Your task to perform on an android device: open chrome privacy settings Image 0: 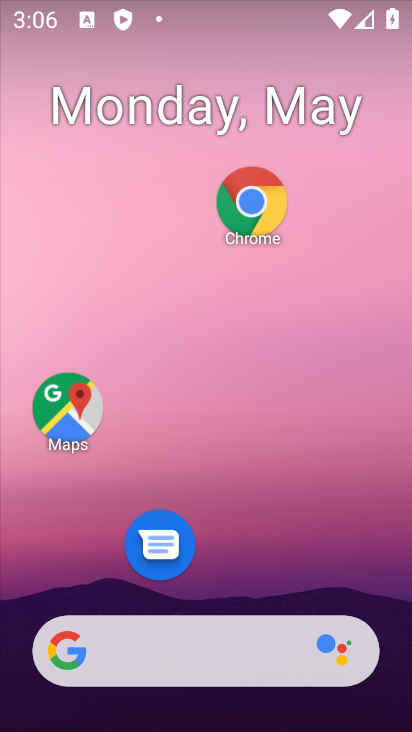
Step 0: click (214, 580)
Your task to perform on an android device: open chrome privacy settings Image 1: 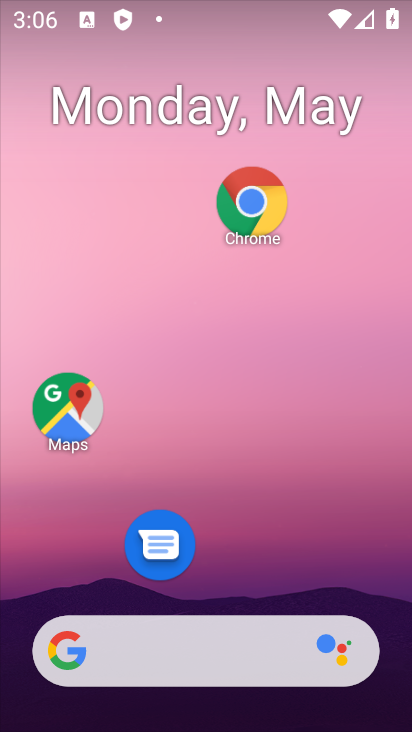
Step 1: click (258, 235)
Your task to perform on an android device: open chrome privacy settings Image 2: 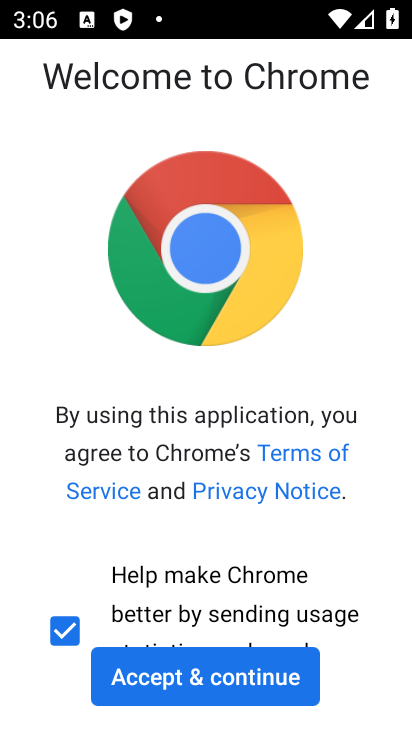
Step 2: click (199, 658)
Your task to perform on an android device: open chrome privacy settings Image 3: 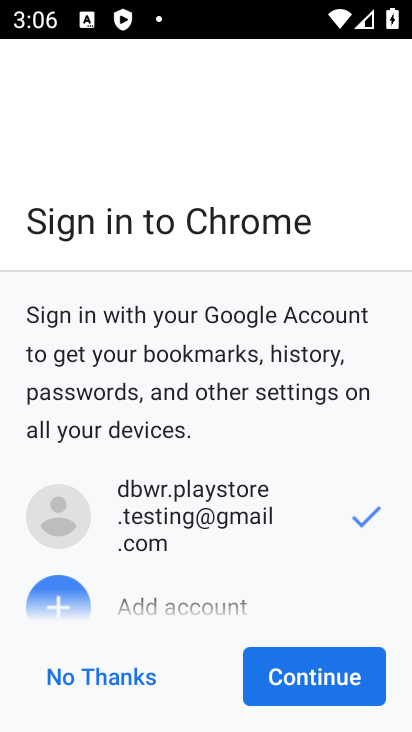
Step 3: click (338, 694)
Your task to perform on an android device: open chrome privacy settings Image 4: 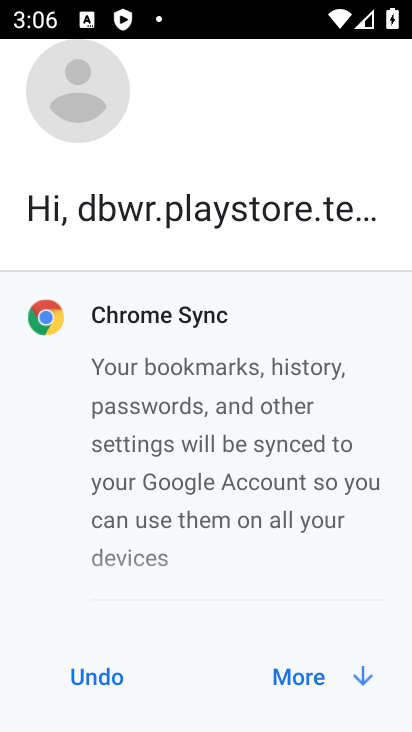
Step 4: click (339, 692)
Your task to perform on an android device: open chrome privacy settings Image 5: 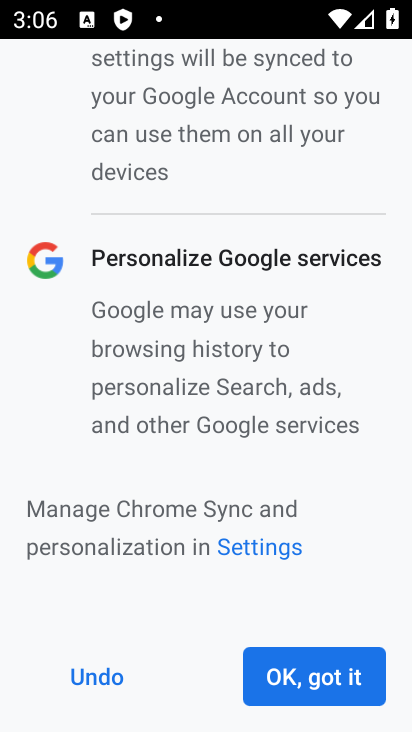
Step 5: click (339, 692)
Your task to perform on an android device: open chrome privacy settings Image 6: 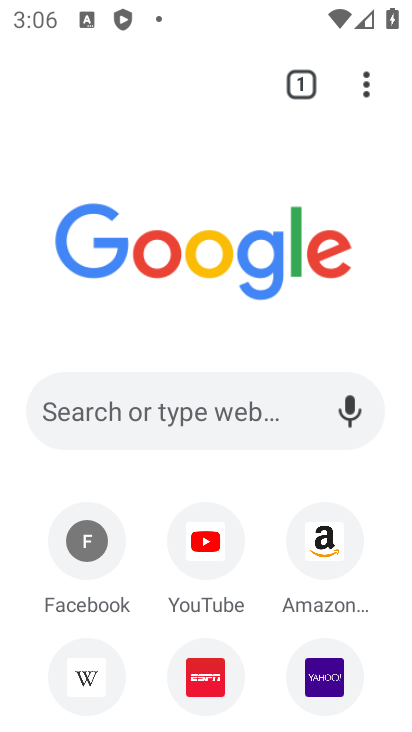
Step 6: click (360, 87)
Your task to perform on an android device: open chrome privacy settings Image 7: 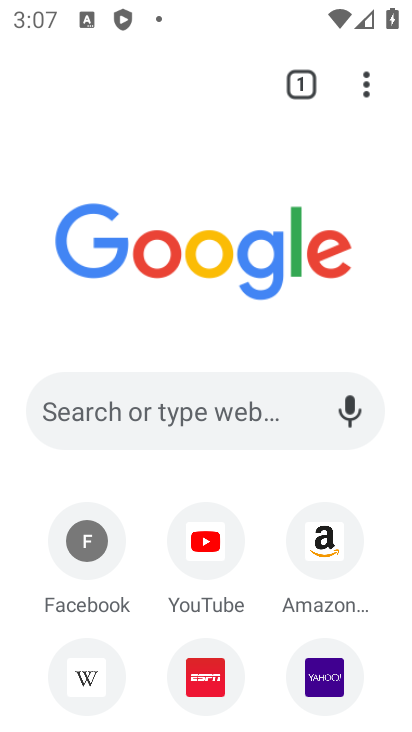
Step 7: drag from (369, 92) to (133, 592)
Your task to perform on an android device: open chrome privacy settings Image 8: 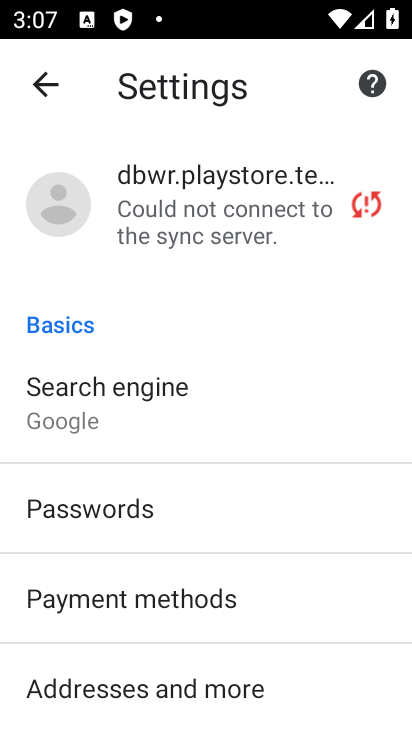
Step 8: drag from (187, 648) to (299, 329)
Your task to perform on an android device: open chrome privacy settings Image 9: 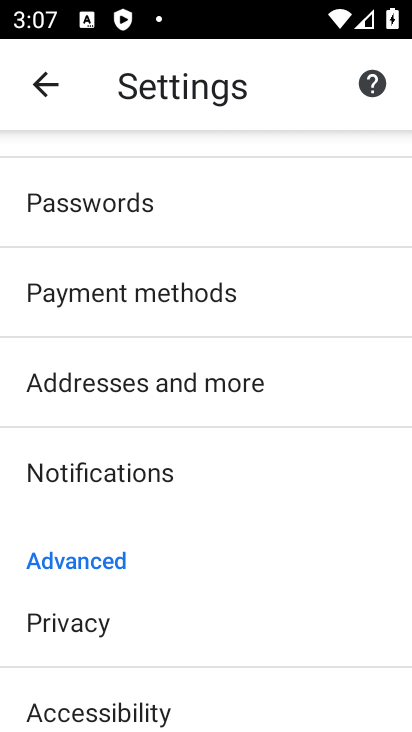
Step 9: drag from (267, 598) to (305, 400)
Your task to perform on an android device: open chrome privacy settings Image 10: 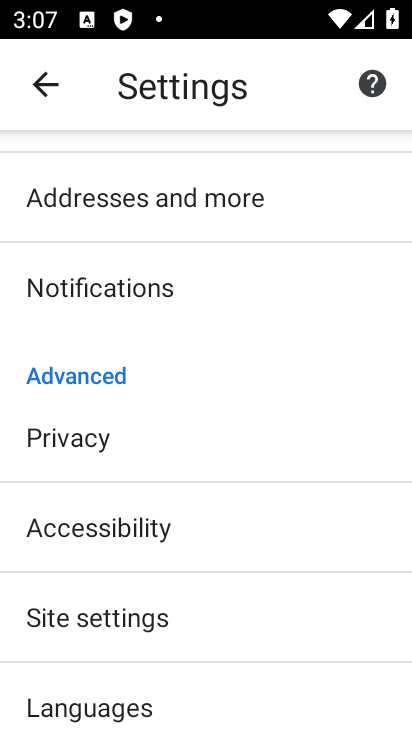
Step 10: click (82, 448)
Your task to perform on an android device: open chrome privacy settings Image 11: 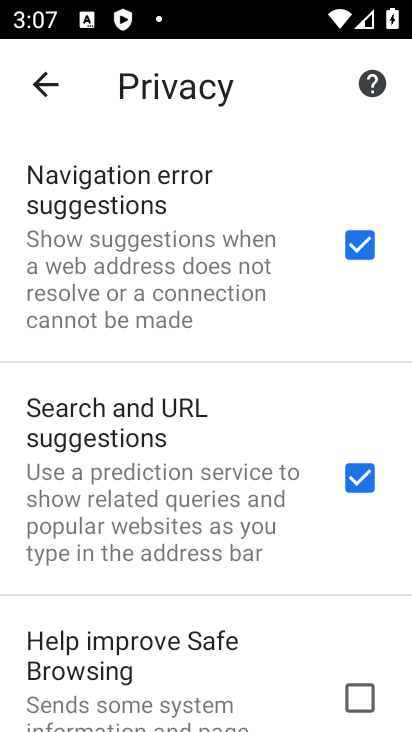
Step 11: task complete